Your task to perform on an android device: turn off data saver in the chrome app Image 0: 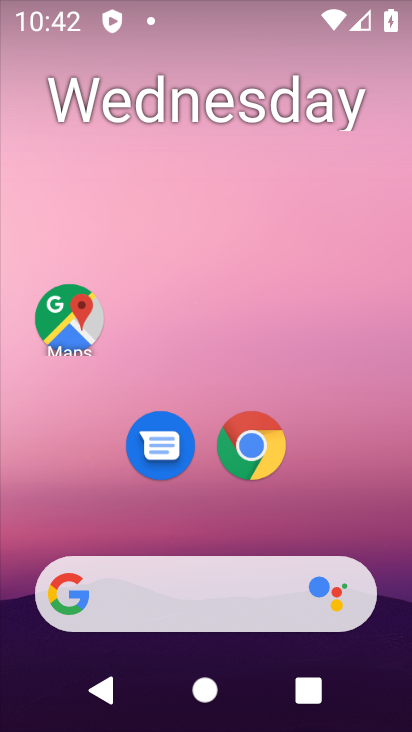
Step 0: click (234, 462)
Your task to perform on an android device: turn off data saver in the chrome app Image 1: 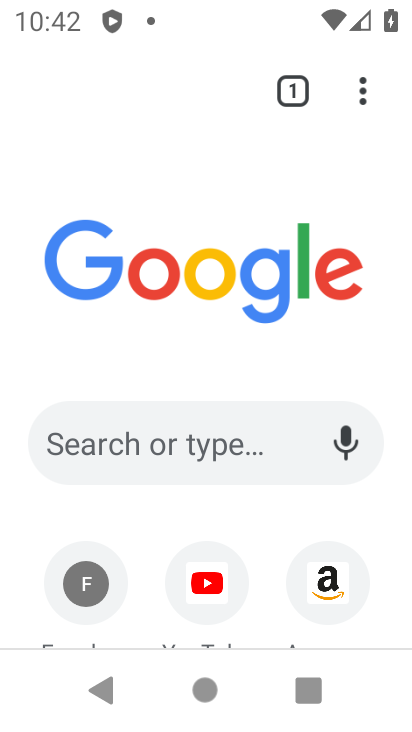
Step 1: drag from (369, 101) to (216, 494)
Your task to perform on an android device: turn off data saver in the chrome app Image 2: 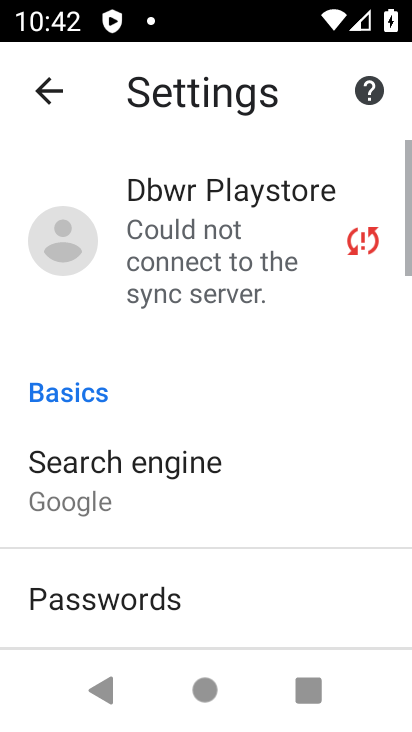
Step 2: drag from (210, 566) to (294, 204)
Your task to perform on an android device: turn off data saver in the chrome app Image 3: 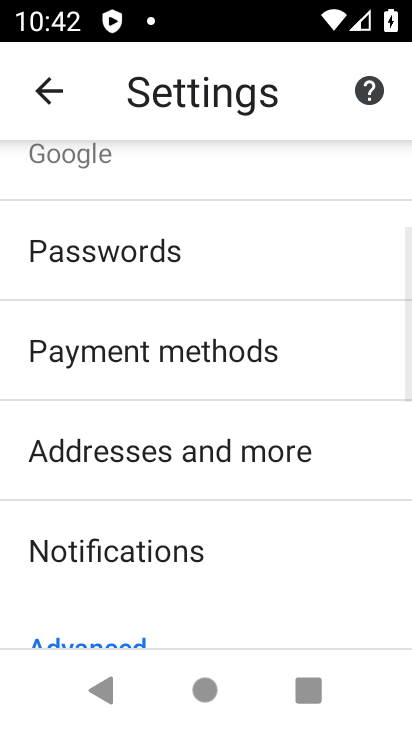
Step 3: drag from (213, 597) to (275, 263)
Your task to perform on an android device: turn off data saver in the chrome app Image 4: 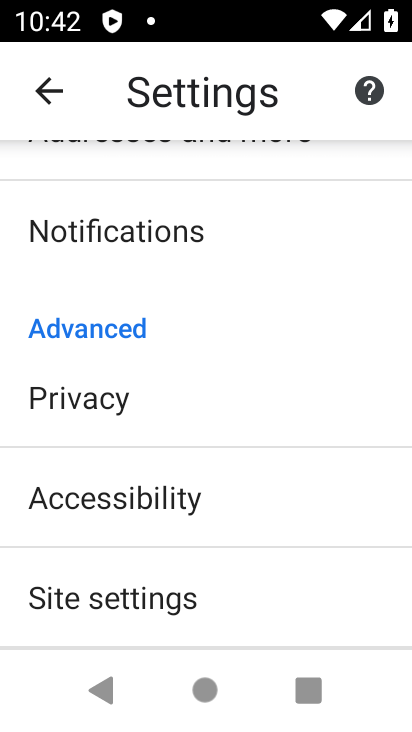
Step 4: drag from (189, 613) to (224, 332)
Your task to perform on an android device: turn off data saver in the chrome app Image 5: 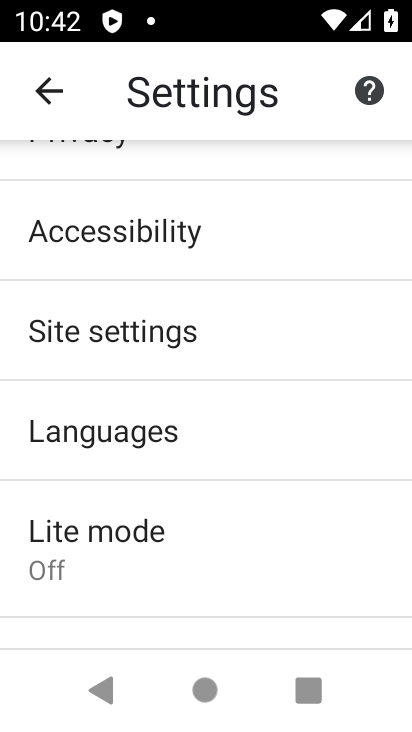
Step 5: click (146, 547)
Your task to perform on an android device: turn off data saver in the chrome app Image 6: 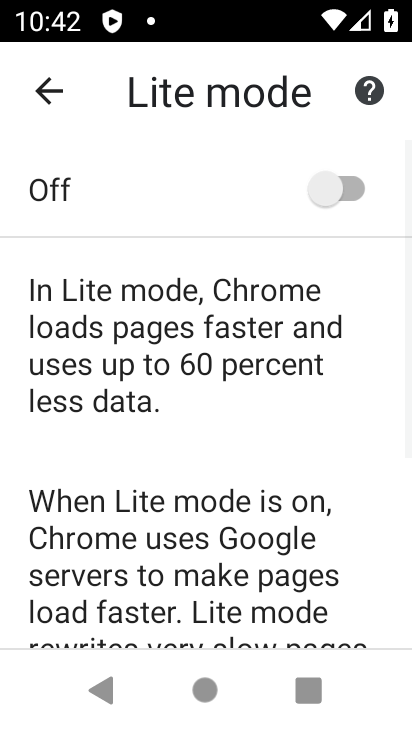
Step 6: task complete